Your task to perform on an android device: change the upload size in google photos Image 0: 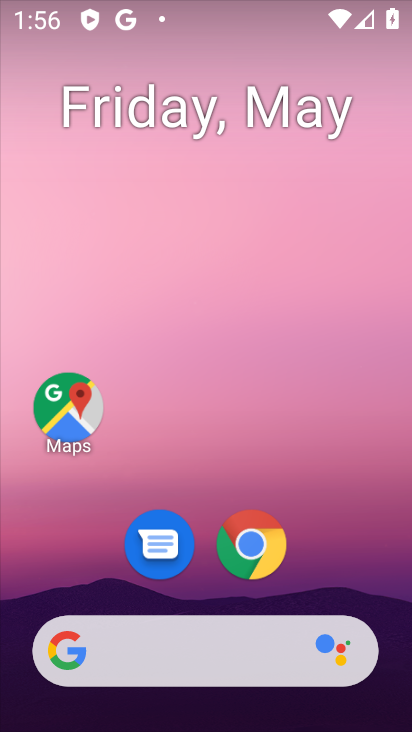
Step 0: drag from (205, 584) to (211, 158)
Your task to perform on an android device: change the upload size in google photos Image 1: 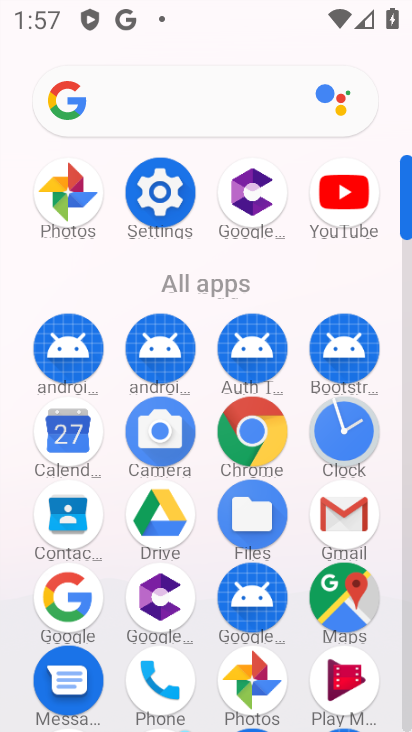
Step 1: drag from (202, 558) to (195, 265)
Your task to perform on an android device: change the upload size in google photos Image 2: 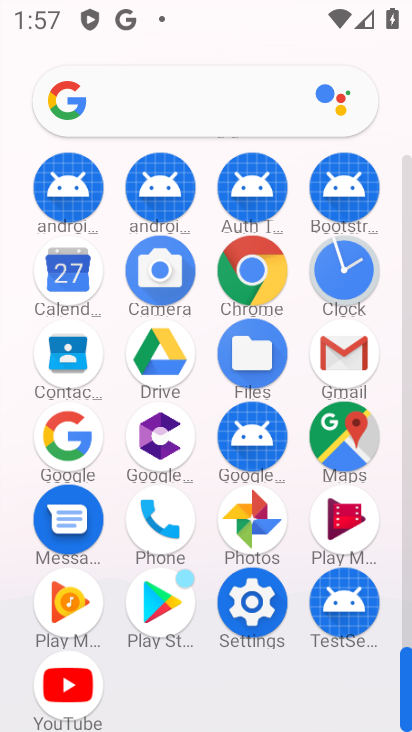
Step 2: click (248, 513)
Your task to perform on an android device: change the upload size in google photos Image 3: 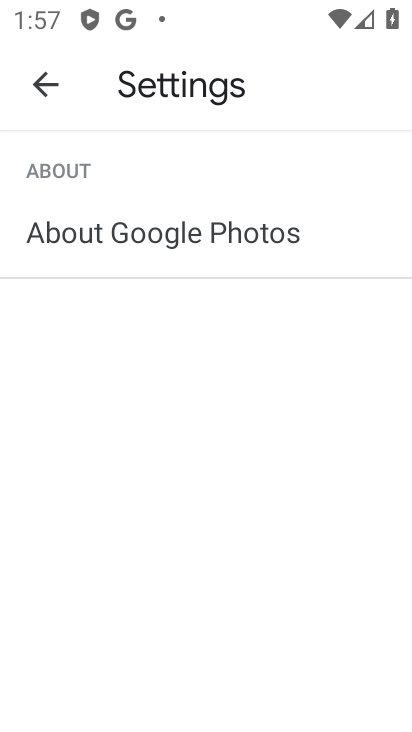
Step 3: click (58, 84)
Your task to perform on an android device: change the upload size in google photos Image 4: 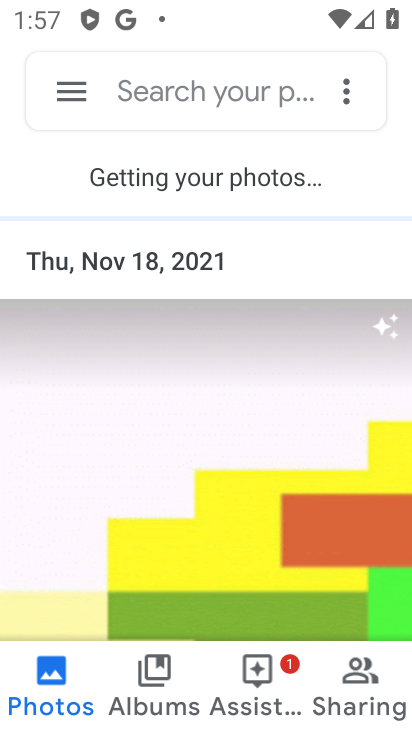
Step 4: click (58, 84)
Your task to perform on an android device: change the upload size in google photos Image 5: 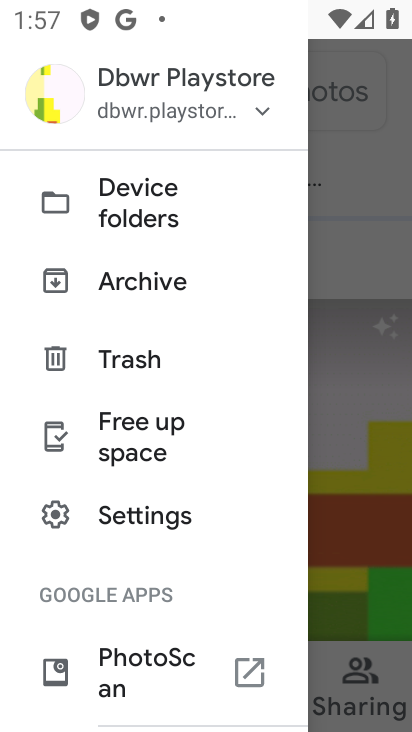
Step 5: drag from (146, 629) to (141, 393)
Your task to perform on an android device: change the upload size in google photos Image 6: 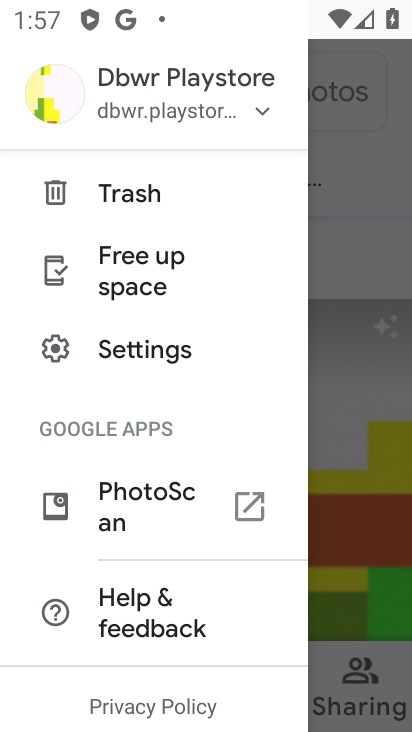
Step 6: click (126, 354)
Your task to perform on an android device: change the upload size in google photos Image 7: 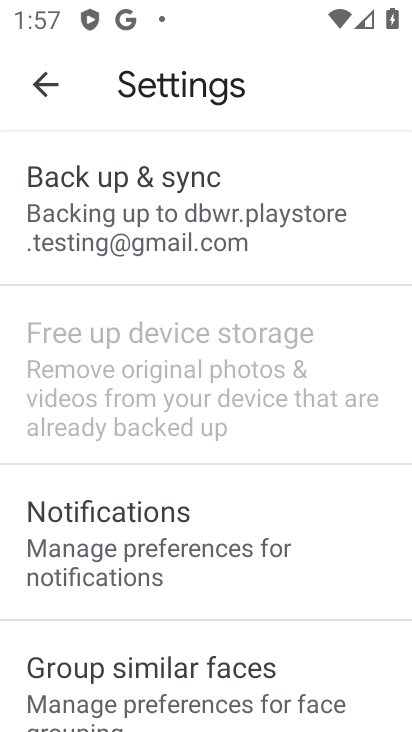
Step 7: drag from (144, 518) to (167, 478)
Your task to perform on an android device: change the upload size in google photos Image 8: 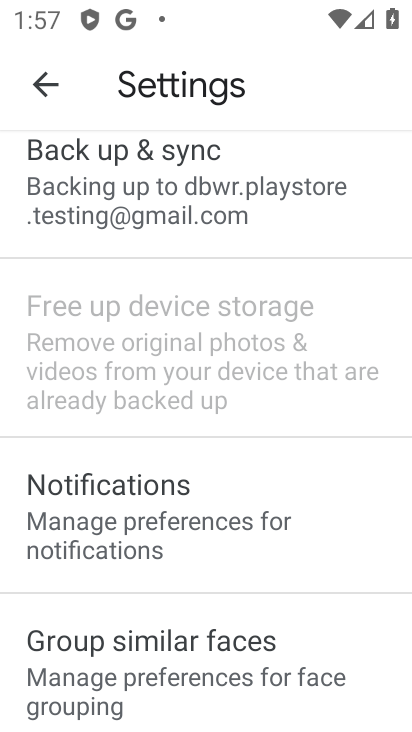
Step 8: click (168, 224)
Your task to perform on an android device: change the upload size in google photos Image 9: 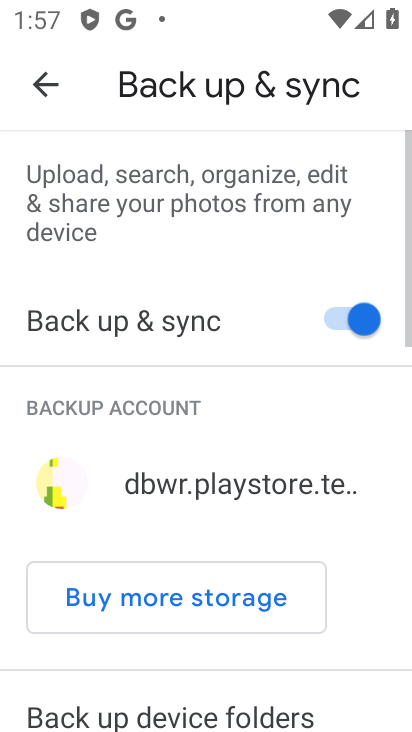
Step 9: drag from (186, 512) to (142, 621)
Your task to perform on an android device: change the upload size in google photos Image 10: 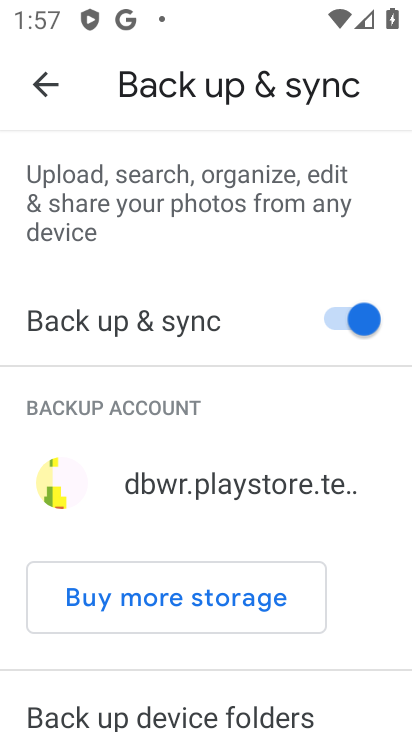
Step 10: drag from (210, 591) to (259, 318)
Your task to perform on an android device: change the upload size in google photos Image 11: 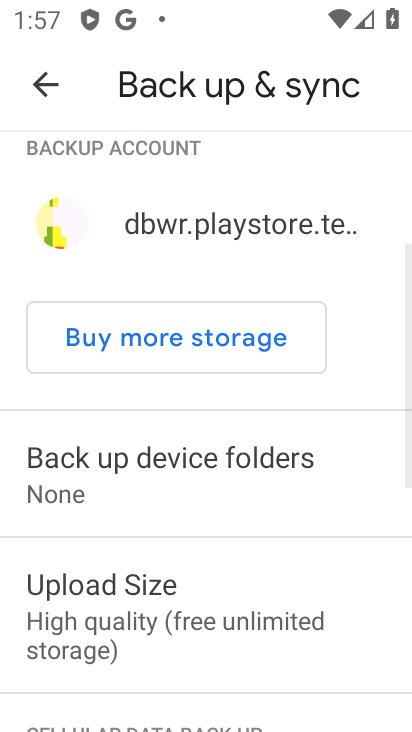
Step 11: click (211, 580)
Your task to perform on an android device: change the upload size in google photos Image 12: 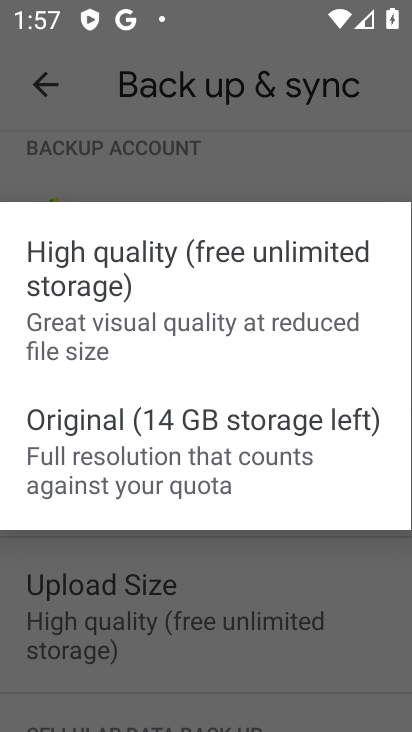
Step 12: click (173, 467)
Your task to perform on an android device: change the upload size in google photos Image 13: 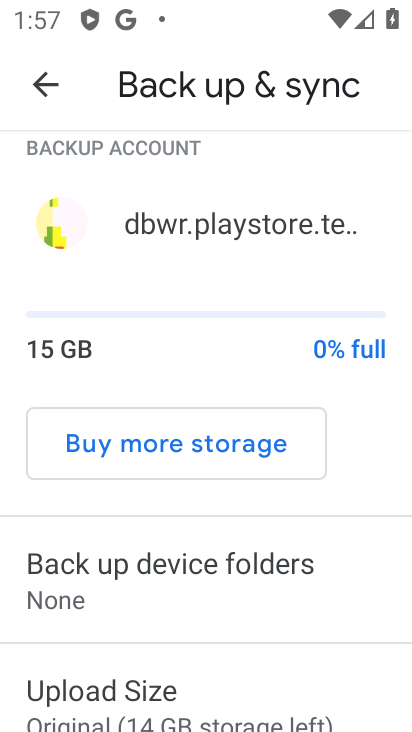
Step 13: task complete